Your task to perform on an android device: turn on airplane mode Image 0: 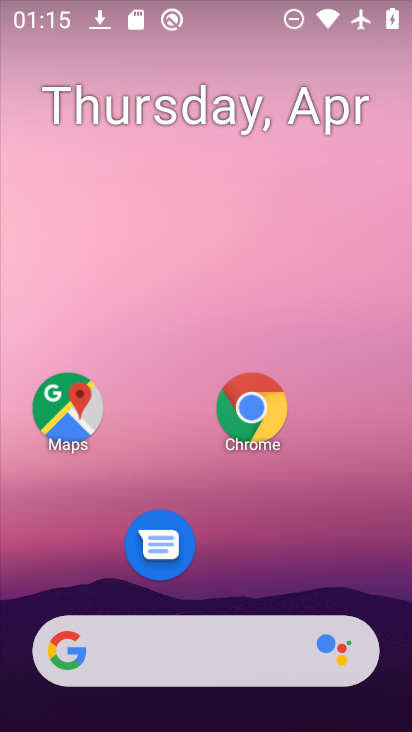
Step 0: drag from (326, 487) to (302, 86)
Your task to perform on an android device: turn on airplane mode Image 1: 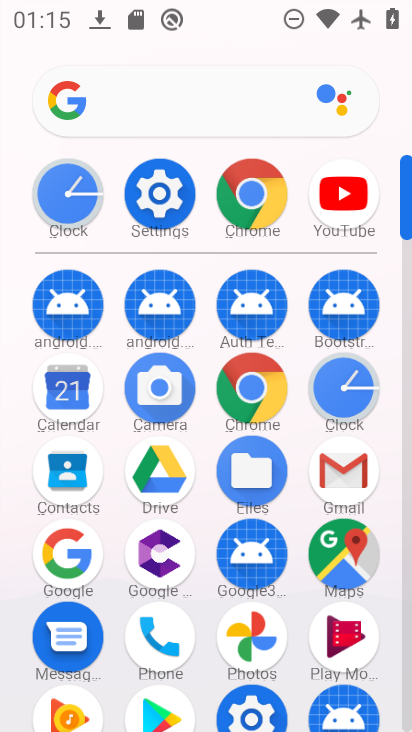
Step 1: task complete